Your task to perform on an android device: stop showing notifications on the lock screen Image 0: 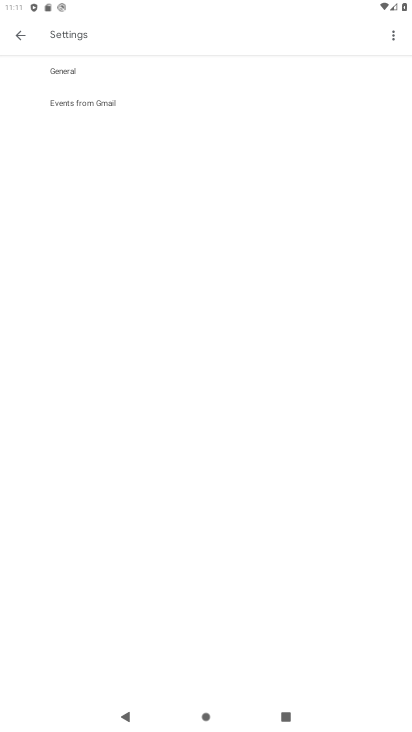
Step 0: press home button
Your task to perform on an android device: stop showing notifications on the lock screen Image 1: 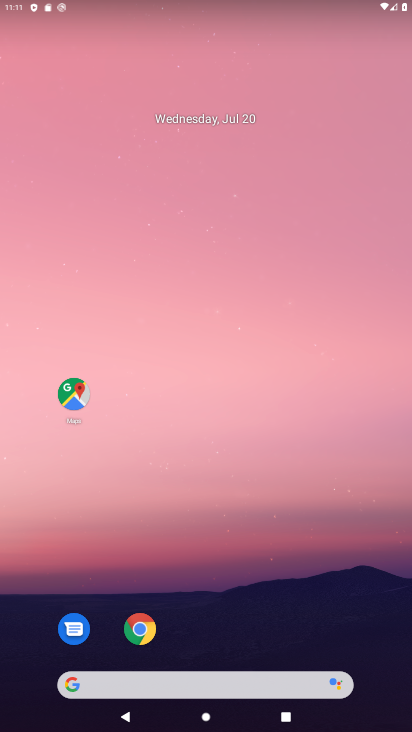
Step 1: drag from (182, 690) to (184, 1)
Your task to perform on an android device: stop showing notifications on the lock screen Image 2: 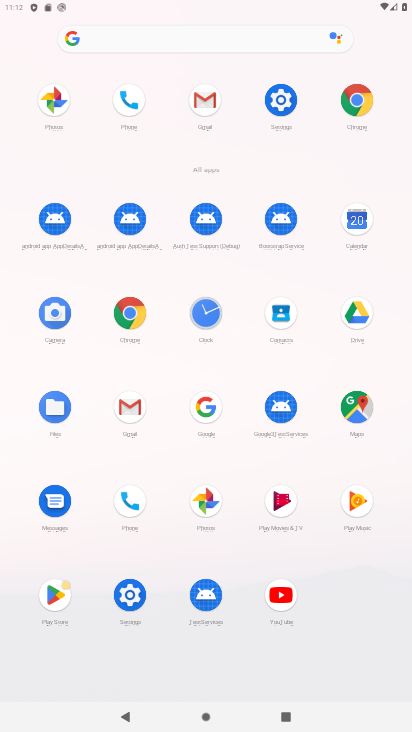
Step 2: click (283, 102)
Your task to perform on an android device: stop showing notifications on the lock screen Image 3: 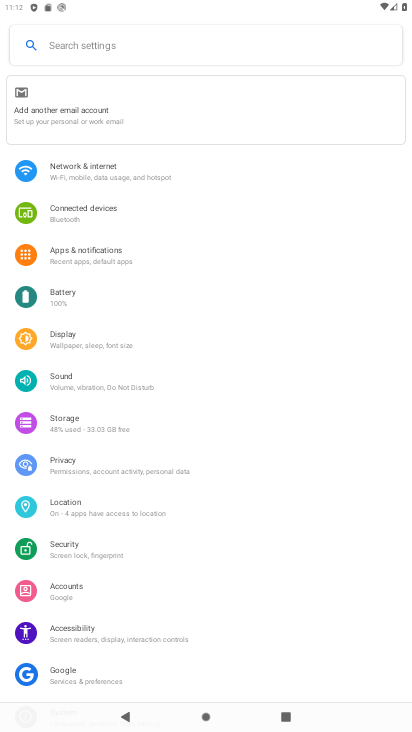
Step 3: click (89, 264)
Your task to perform on an android device: stop showing notifications on the lock screen Image 4: 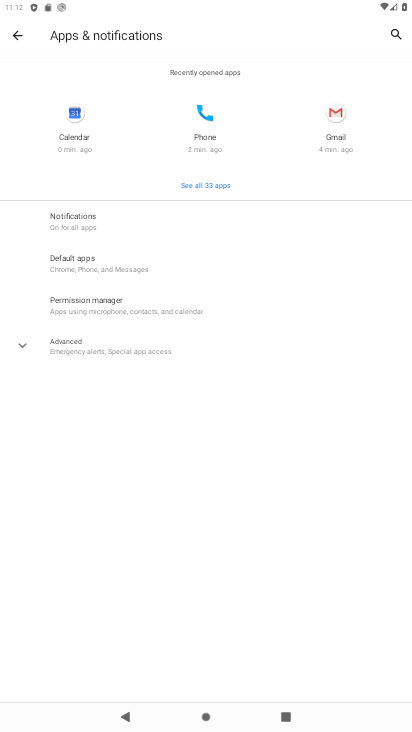
Step 4: click (77, 226)
Your task to perform on an android device: stop showing notifications on the lock screen Image 5: 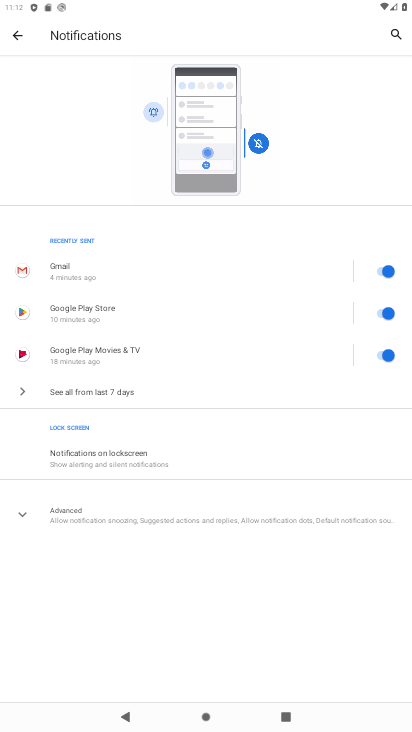
Step 5: click (145, 465)
Your task to perform on an android device: stop showing notifications on the lock screen Image 6: 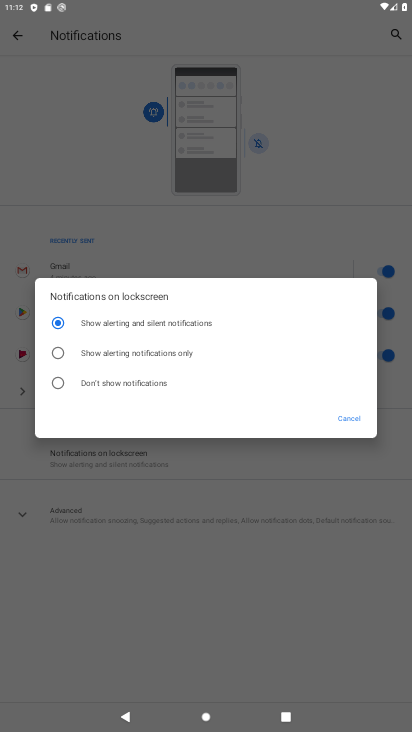
Step 6: click (94, 385)
Your task to perform on an android device: stop showing notifications on the lock screen Image 7: 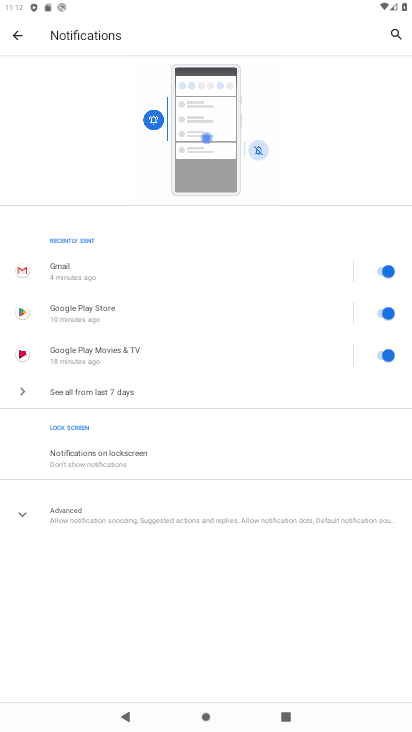
Step 7: task complete